Your task to perform on an android device: What's on my calendar today? Image 0: 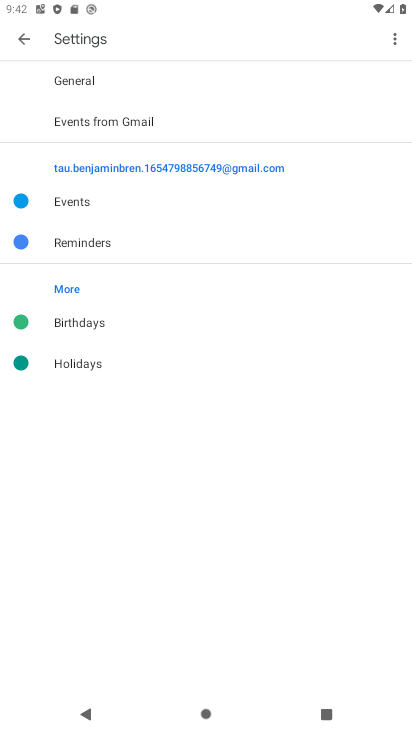
Step 0: press home button
Your task to perform on an android device: What's on my calendar today? Image 1: 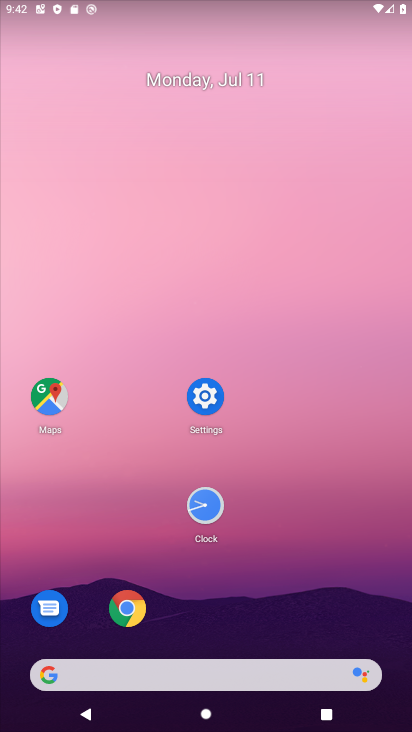
Step 1: drag from (395, 698) to (336, 108)
Your task to perform on an android device: What's on my calendar today? Image 2: 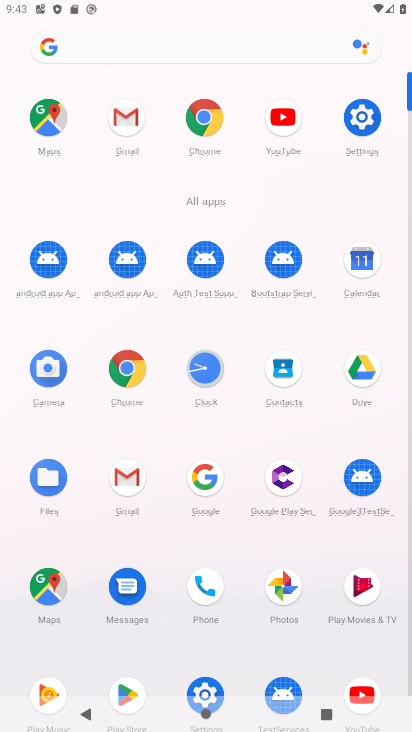
Step 2: click (365, 266)
Your task to perform on an android device: What's on my calendar today? Image 3: 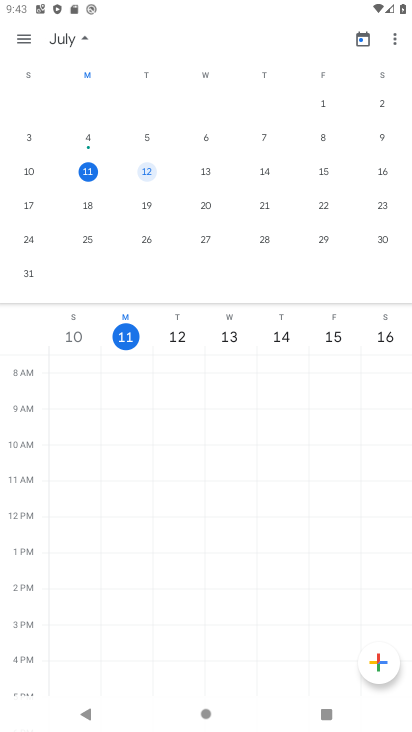
Step 3: click (81, 37)
Your task to perform on an android device: What's on my calendar today? Image 4: 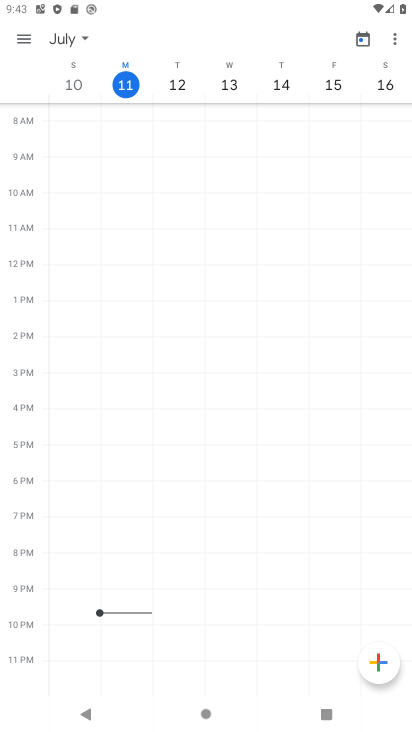
Step 4: click (172, 74)
Your task to perform on an android device: What's on my calendar today? Image 5: 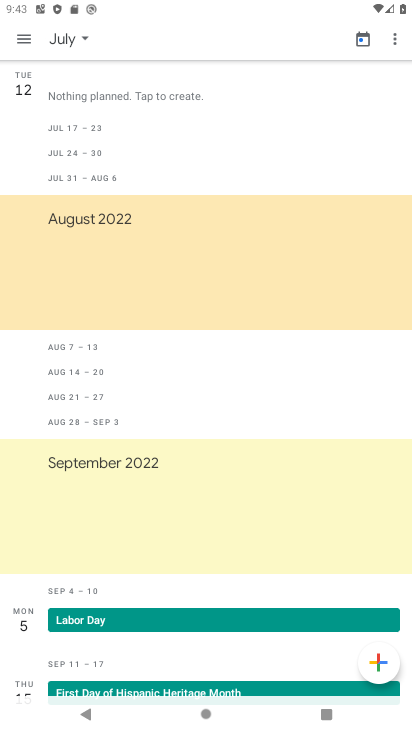
Step 5: click (80, 33)
Your task to perform on an android device: What's on my calendar today? Image 6: 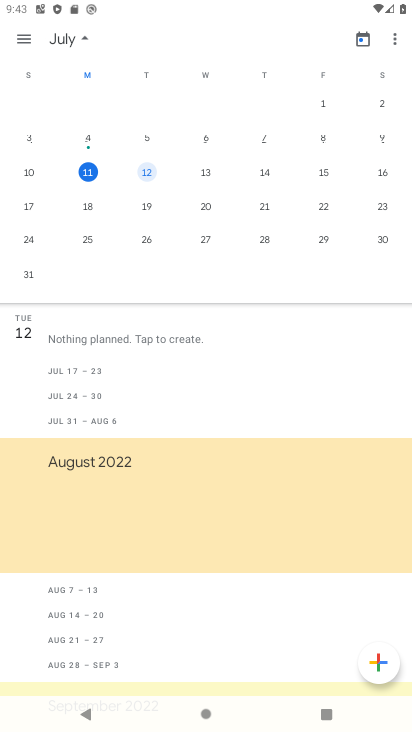
Step 6: click (91, 169)
Your task to perform on an android device: What's on my calendar today? Image 7: 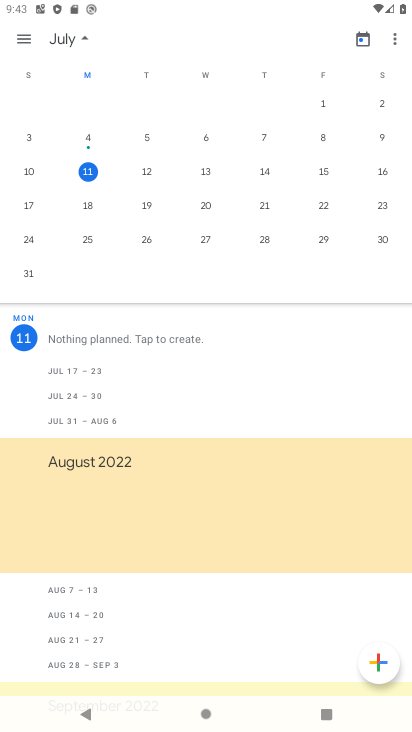
Step 7: task complete